Your task to perform on an android device: toggle priority inbox in the gmail app Image 0: 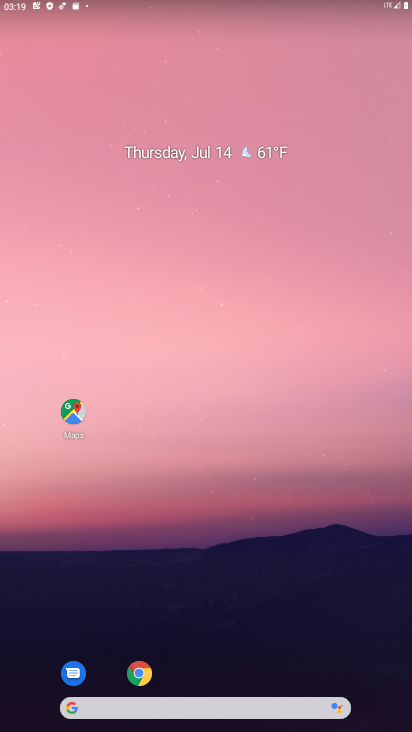
Step 0: drag from (257, 551) to (241, 125)
Your task to perform on an android device: toggle priority inbox in the gmail app Image 1: 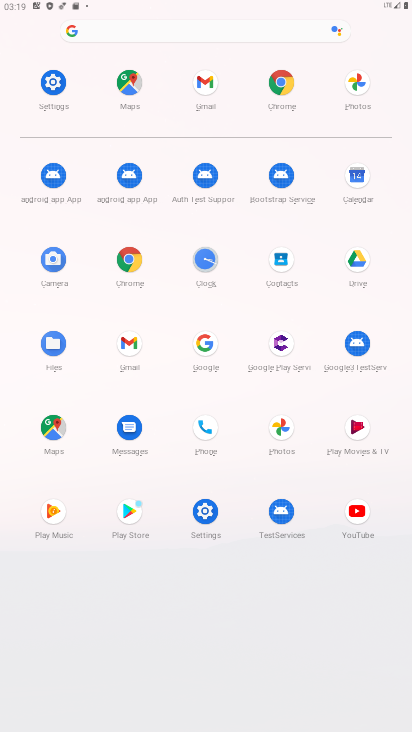
Step 1: click (203, 89)
Your task to perform on an android device: toggle priority inbox in the gmail app Image 2: 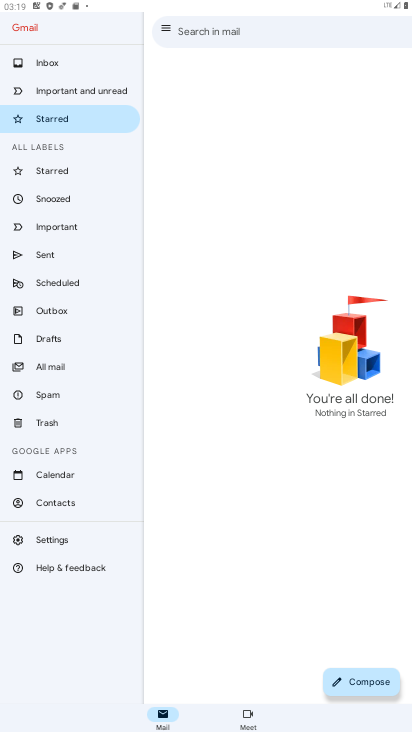
Step 2: click (46, 530)
Your task to perform on an android device: toggle priority inbox in the gmail app Image 3: 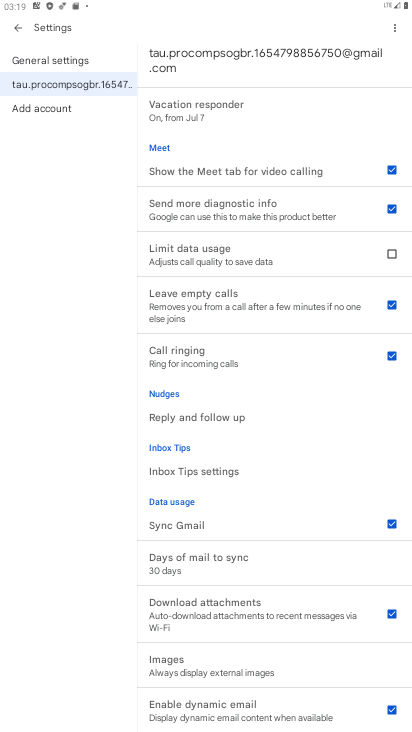
Step 3: task complete